Your task to perform on an android device: change the clock display to show seconds Image 0: 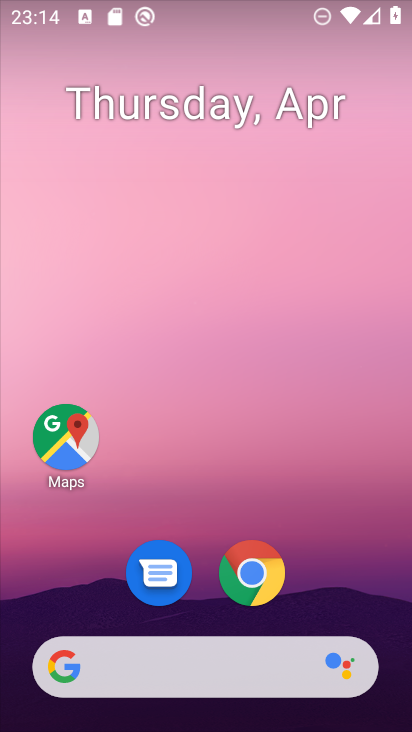
Step 0: drag from (320, 590) to (259, 115)
Your task to perform on an android device: change the clock display to show seconds Image 1: 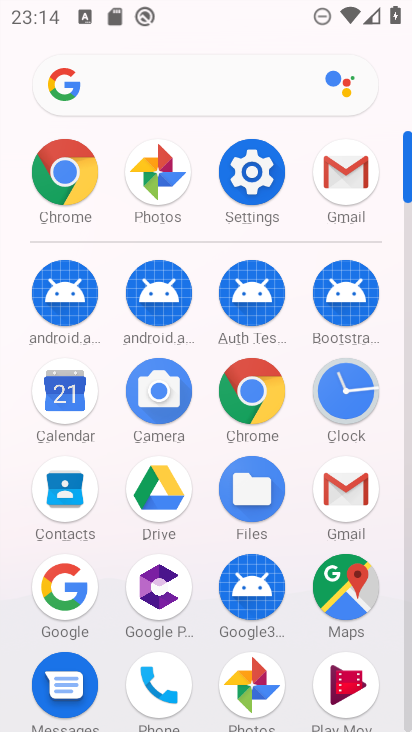
Step 1: click (337, 394)
Your task to perform on an android device: change the clock display to show seconds Image 2: 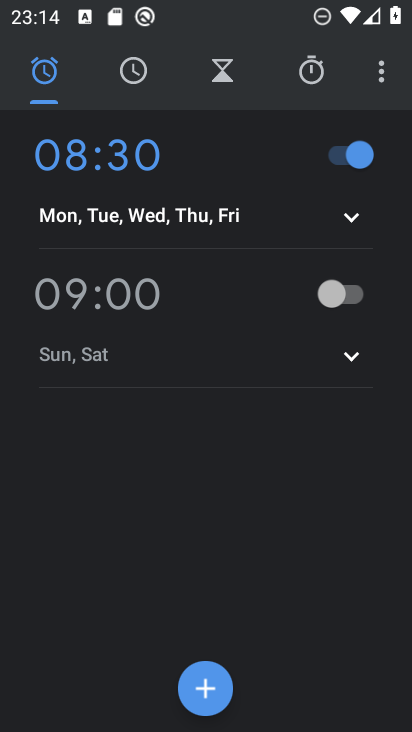
Step 2: click (383, 93)
Your task to perform on an android device: change the clock display to show seconds Image 3: 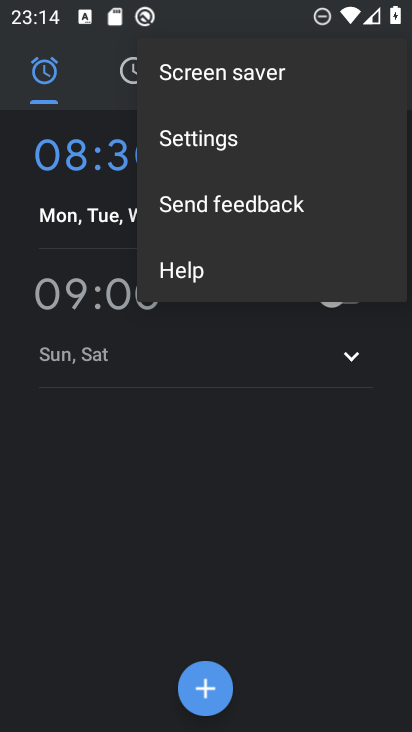
Step 3: click (249, 141)
Your task to perform on an android device: change the clock display to show seconds Image 4: 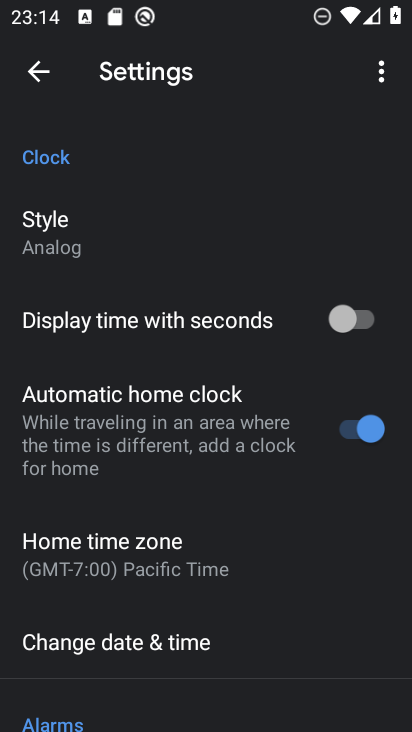
Step 4: click (349, 328)
Your task to perform on an android device: change the clock display to show seconds Image 5: 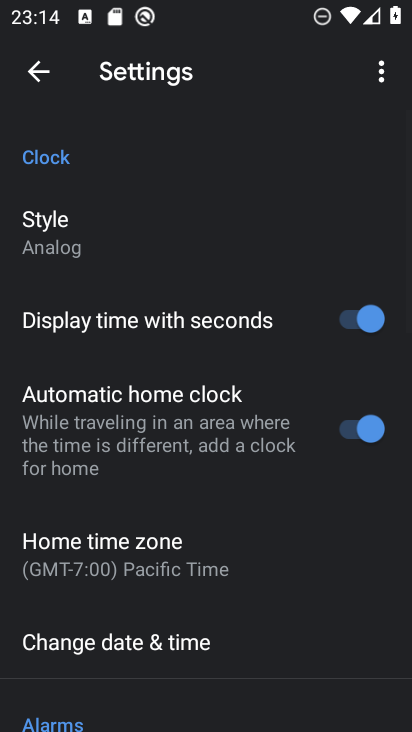
Step 5: task complete